Your task to perform on an android device: toggle pop-ups in chrome Image 0: 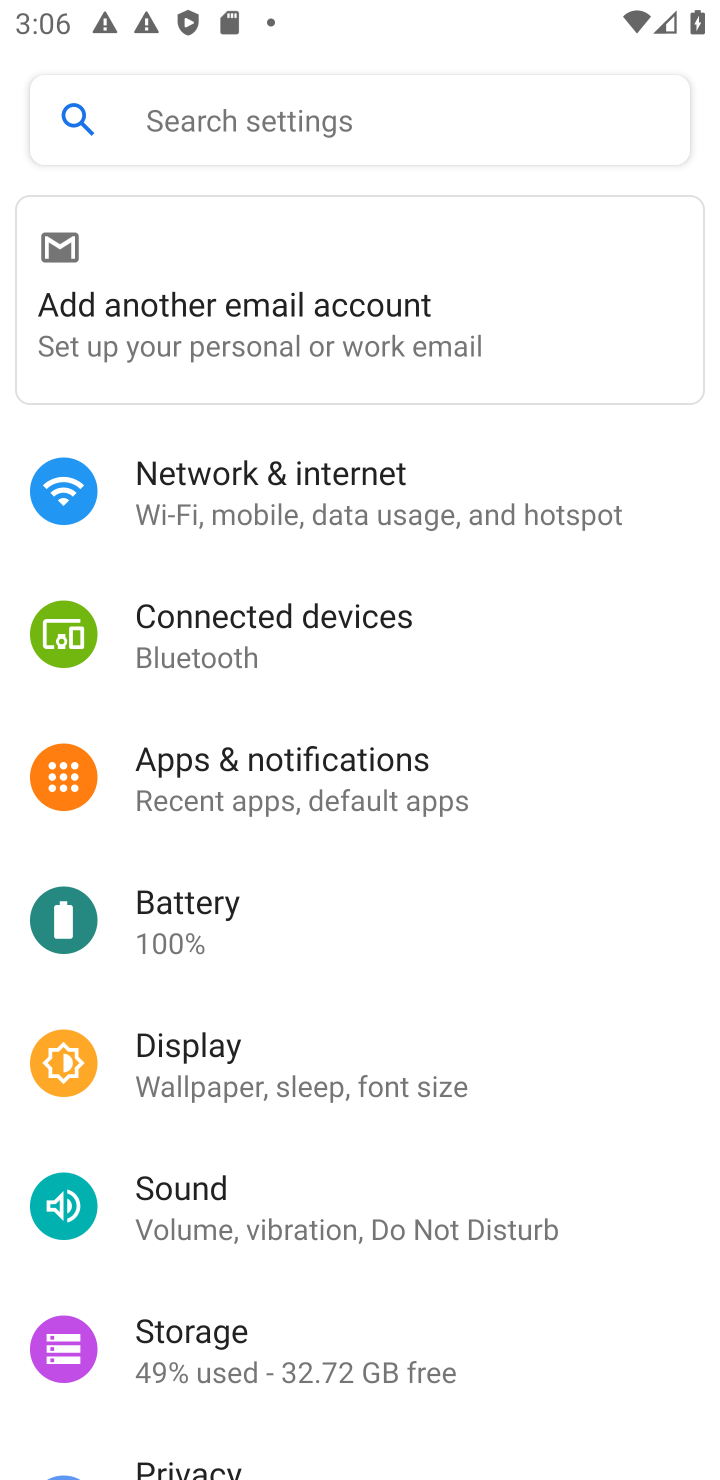
Step 0: press back button
Your task to perform on an android device: toggle pop-ups in chrome Image 1: 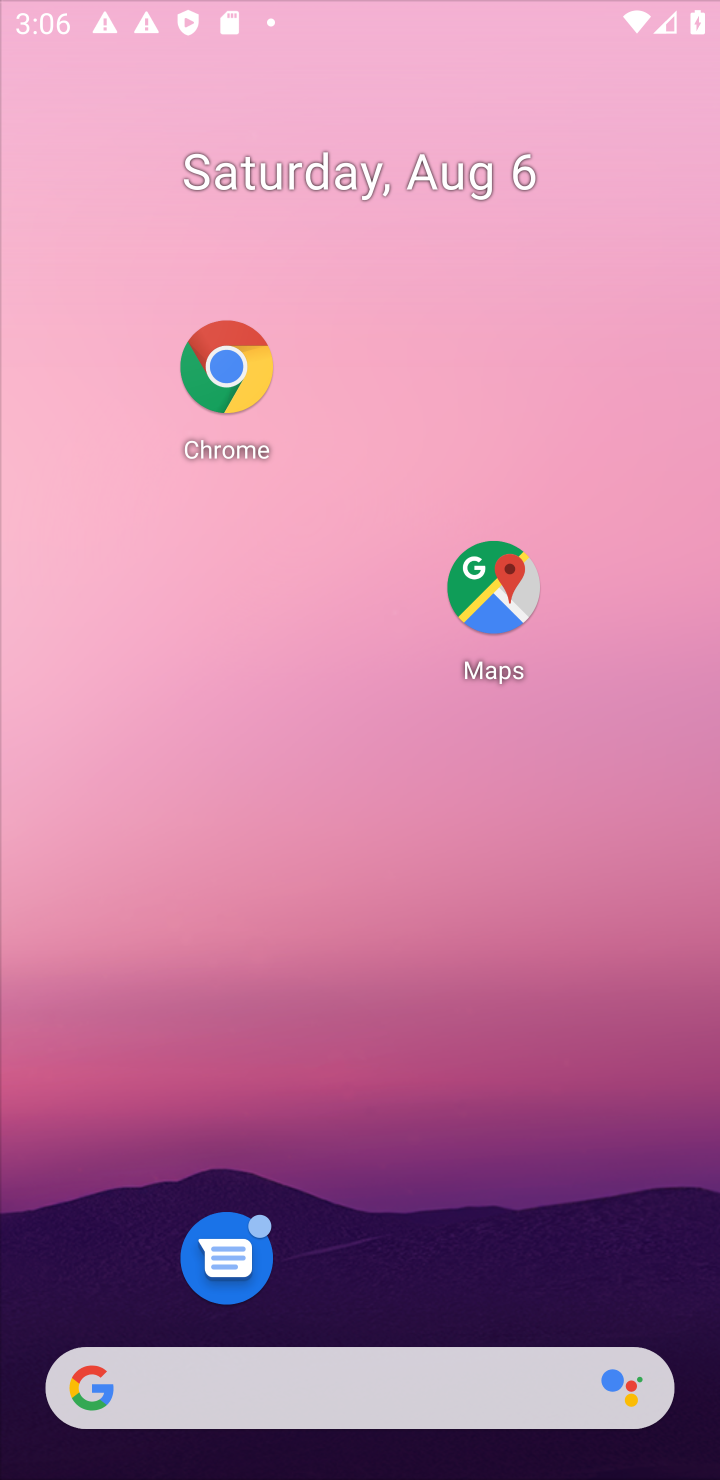
Step 1: drag from (428, 1229) to (309, 106)
Your task to perform on an android device: toggle pop-ups in chrome Image 2: 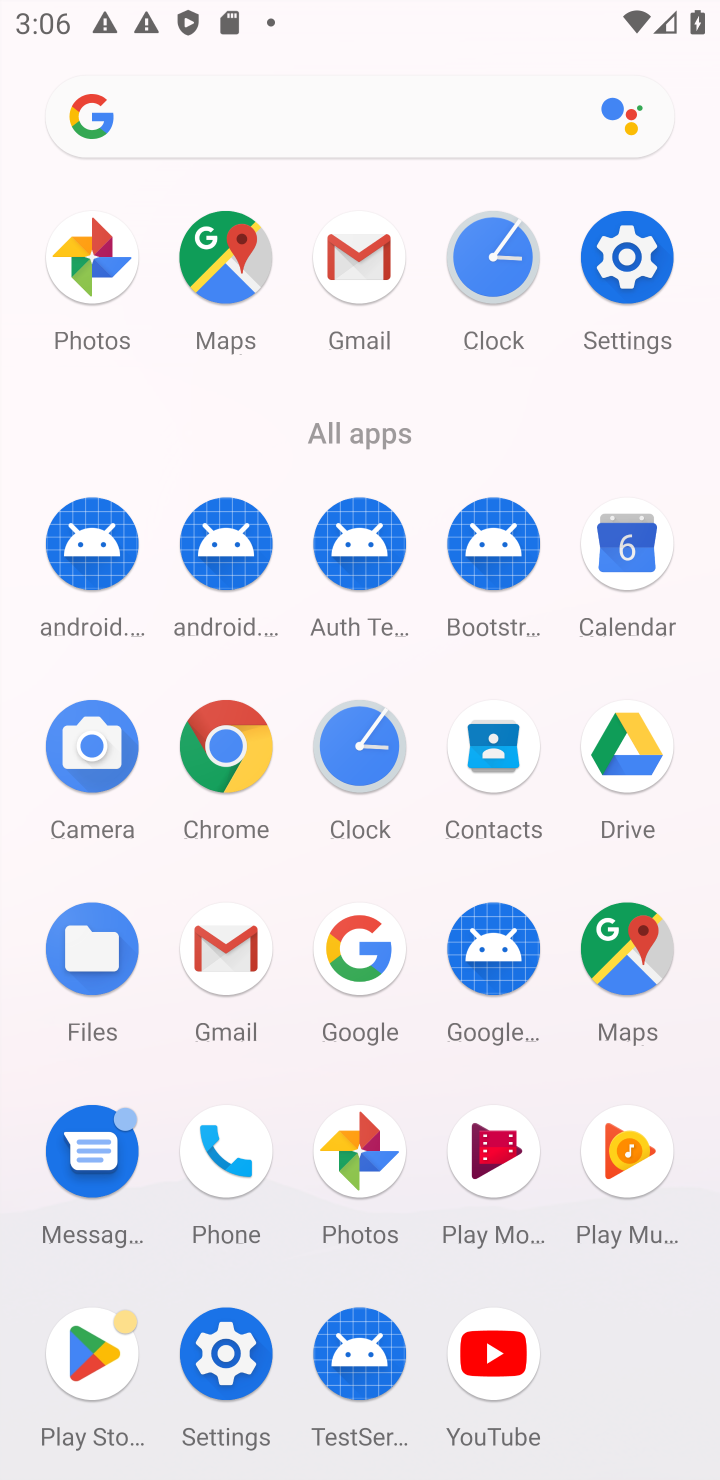
Step 2: click (210, 741)
Your task to perform on an android device: toggle pop-ups in chrome Image 3: 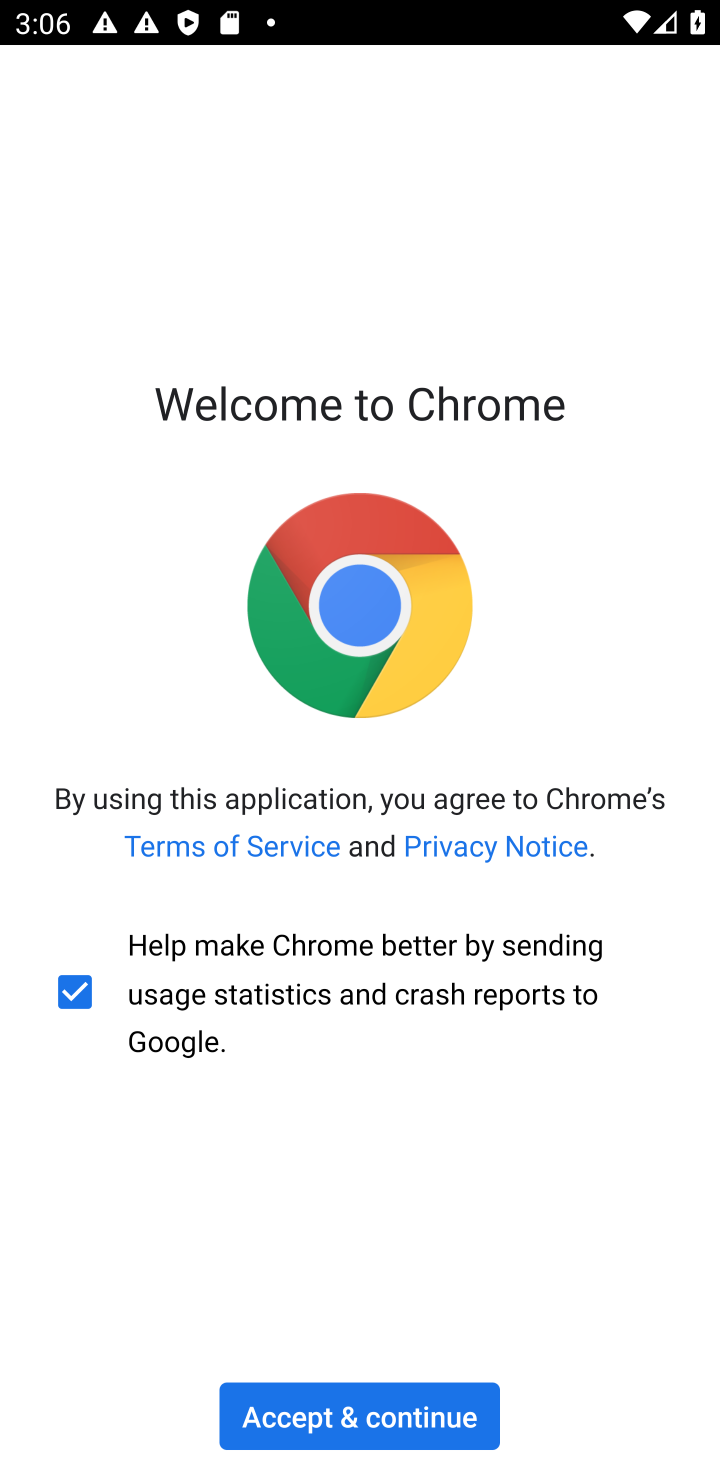
Step 3: click (359, 1408)
Your task to perform on an android device: toggle pop-ups in chrome Image 4: 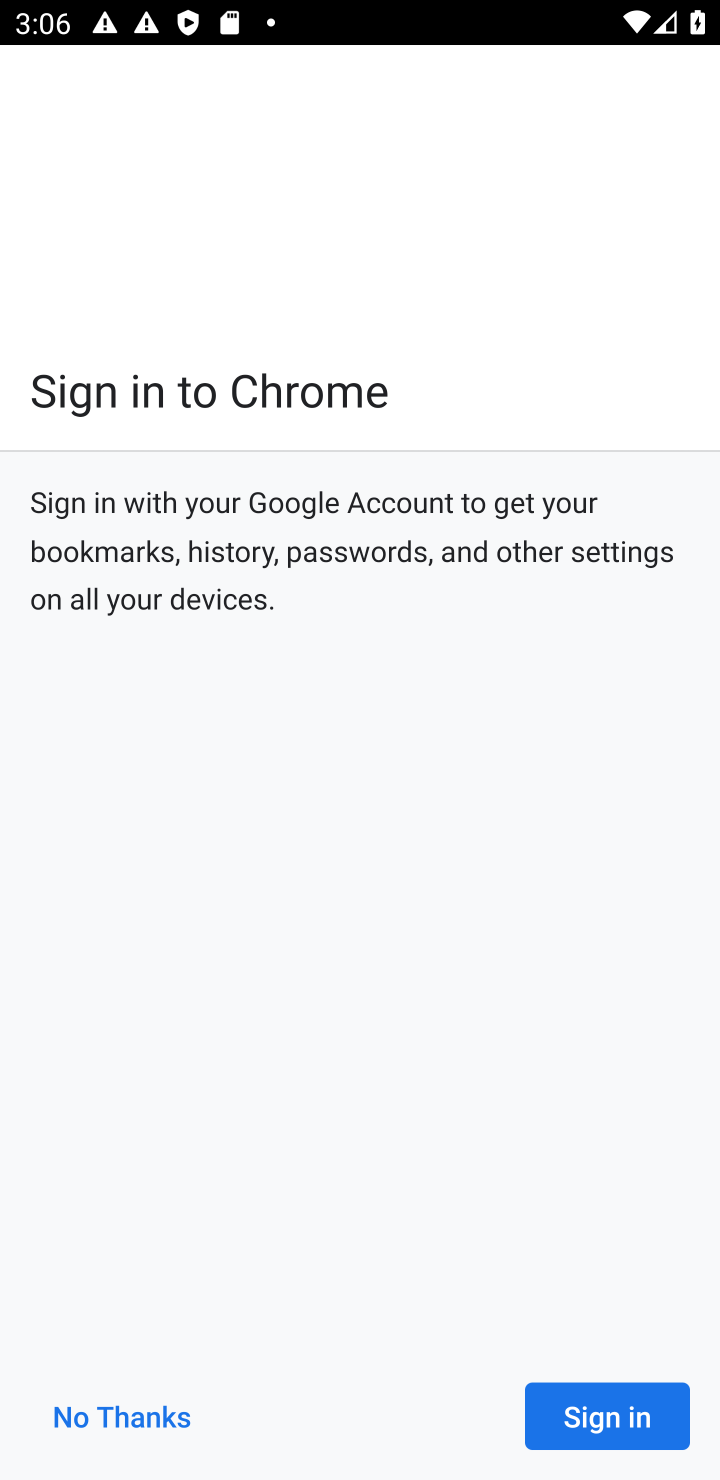
Step 4: click (139, 1425)
Your task to perform on an android device: toggle pop-ups in chrome Image 5: 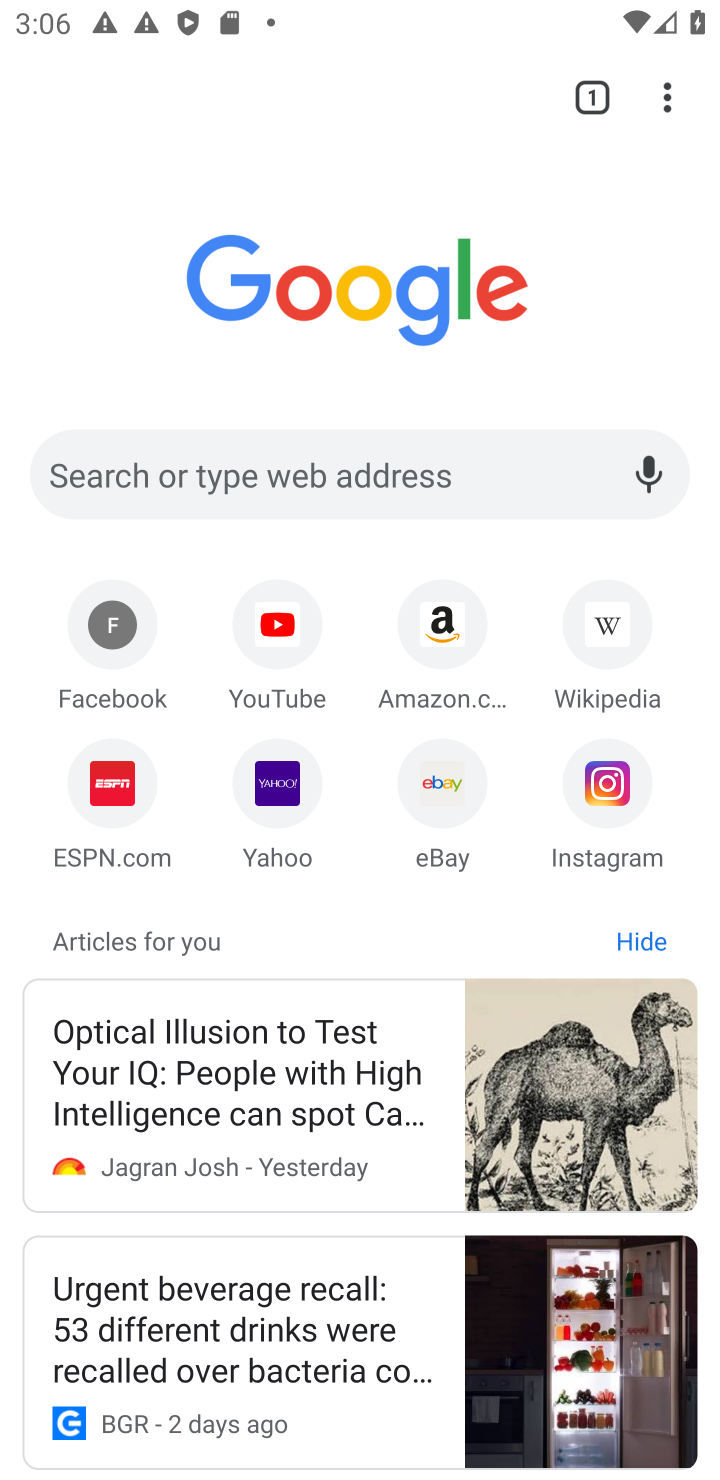
Step 5: click (664, 98)
Your task to perform on an android device: toggle pop-ups in chrome Image 6: 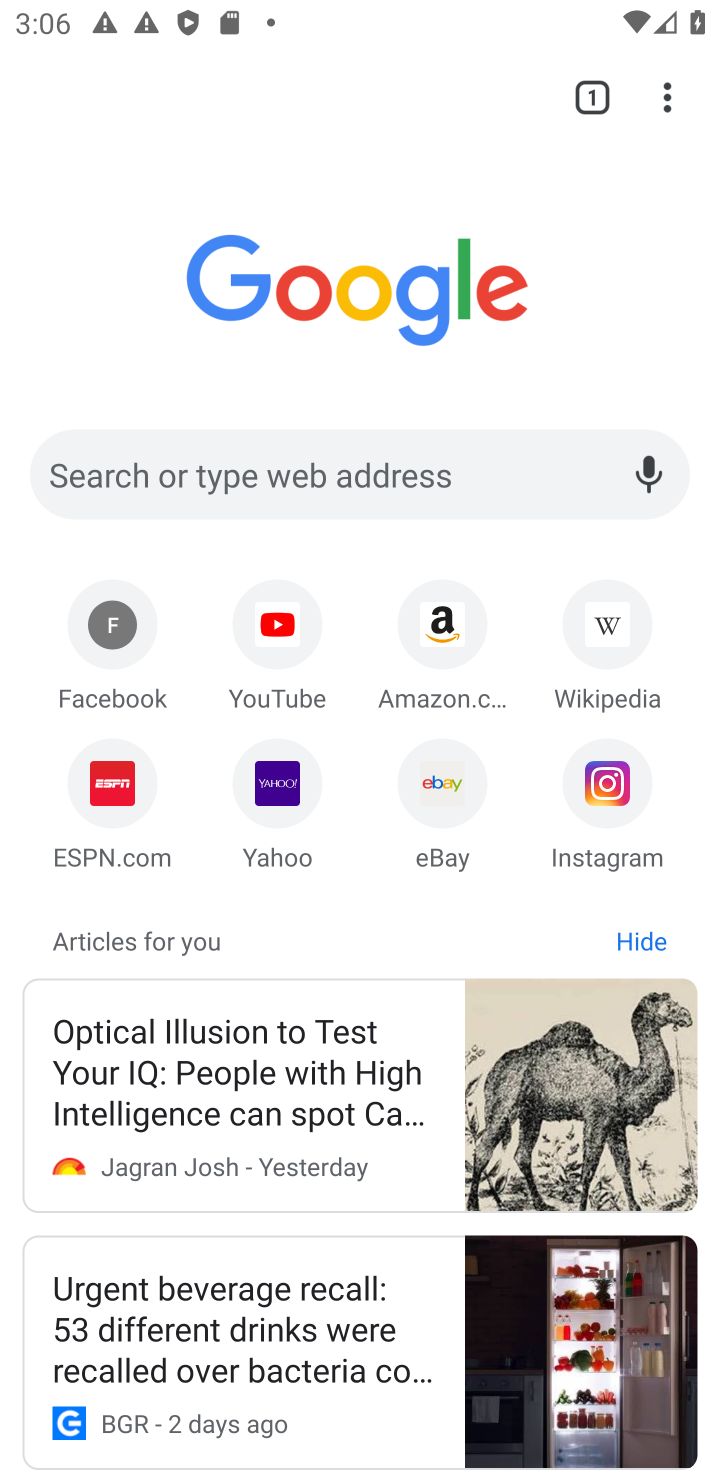
Step 6: click (656, 105)
Your task to perform on an android device: toggle pop-ups in chrome Image 7: 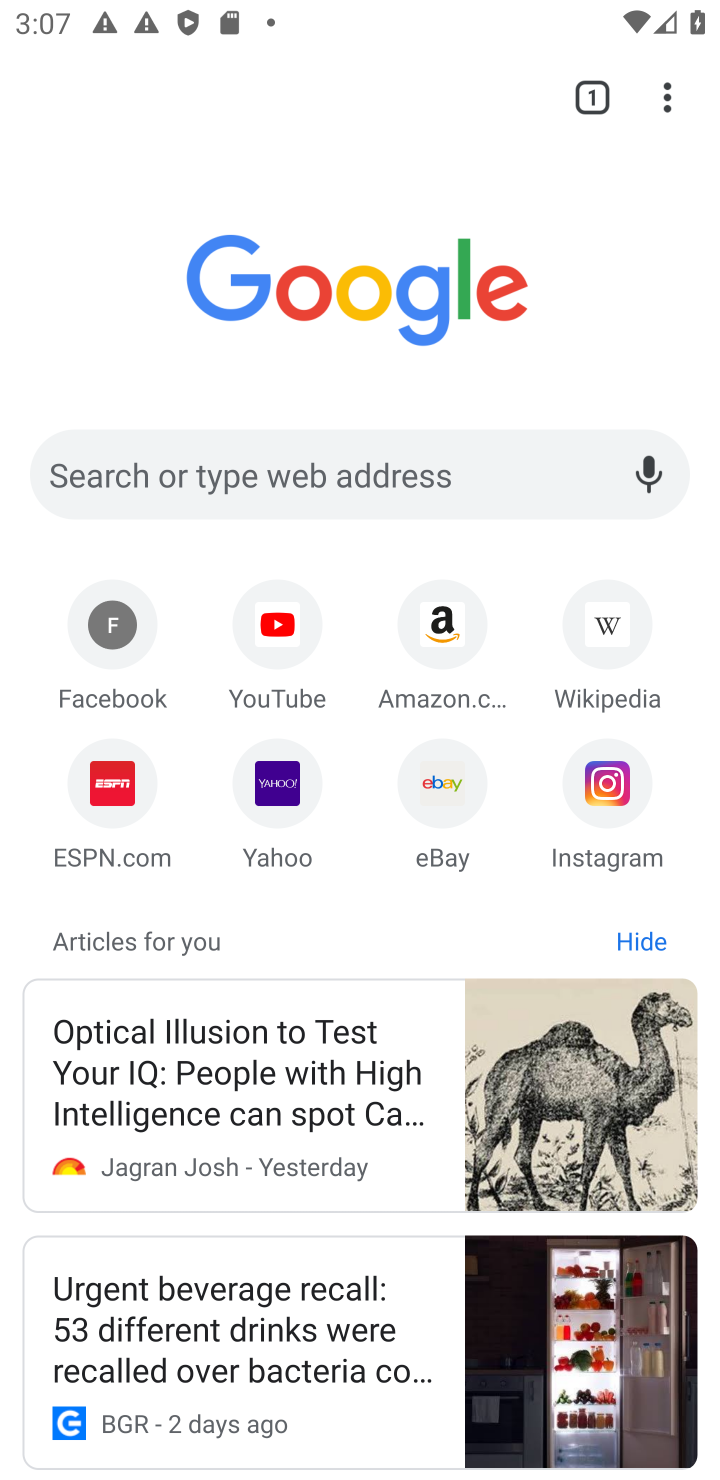
Step 7: click (659, 97)
Your task to perform on an android device: toggle pop-ups in chrome Image 8: 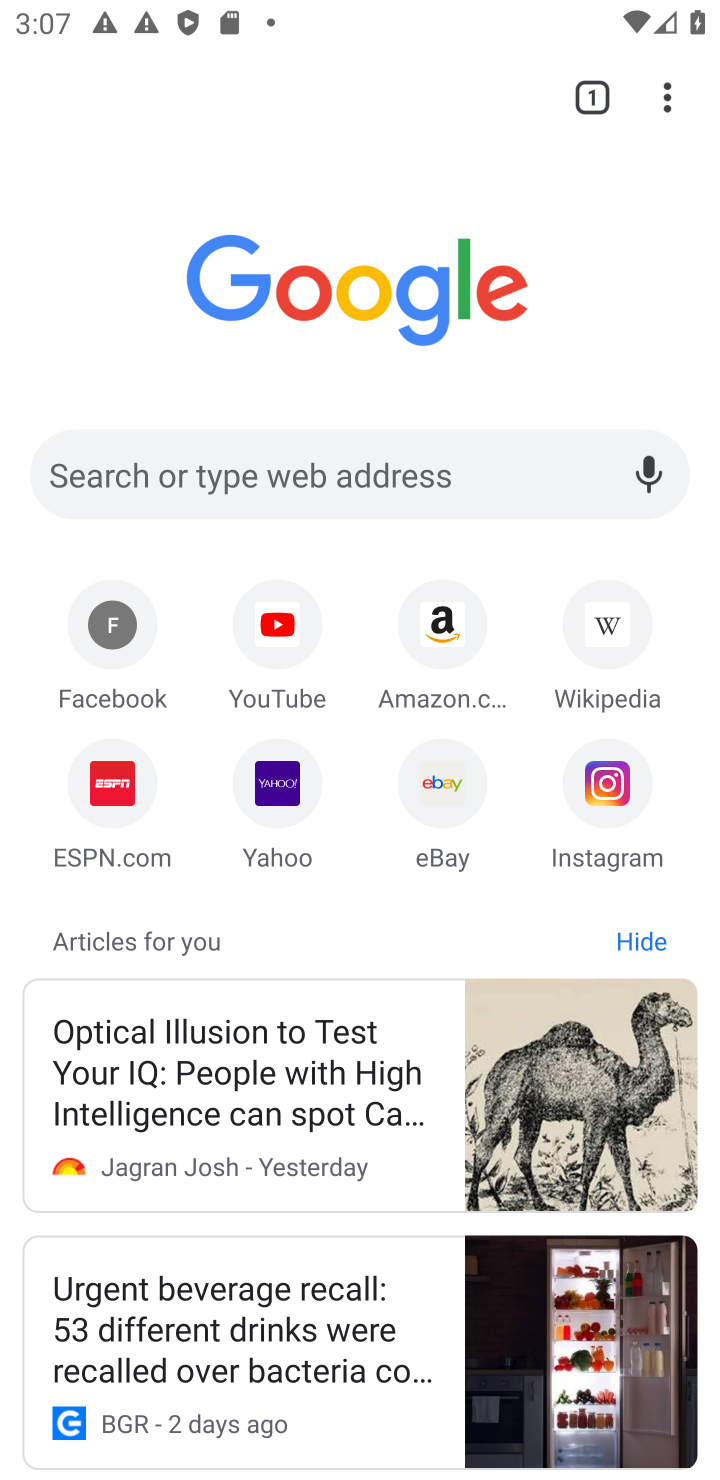
Step 8: click (658, 87)
Your task to perform on an android device: toggle pop-ups in chrome Image 9: 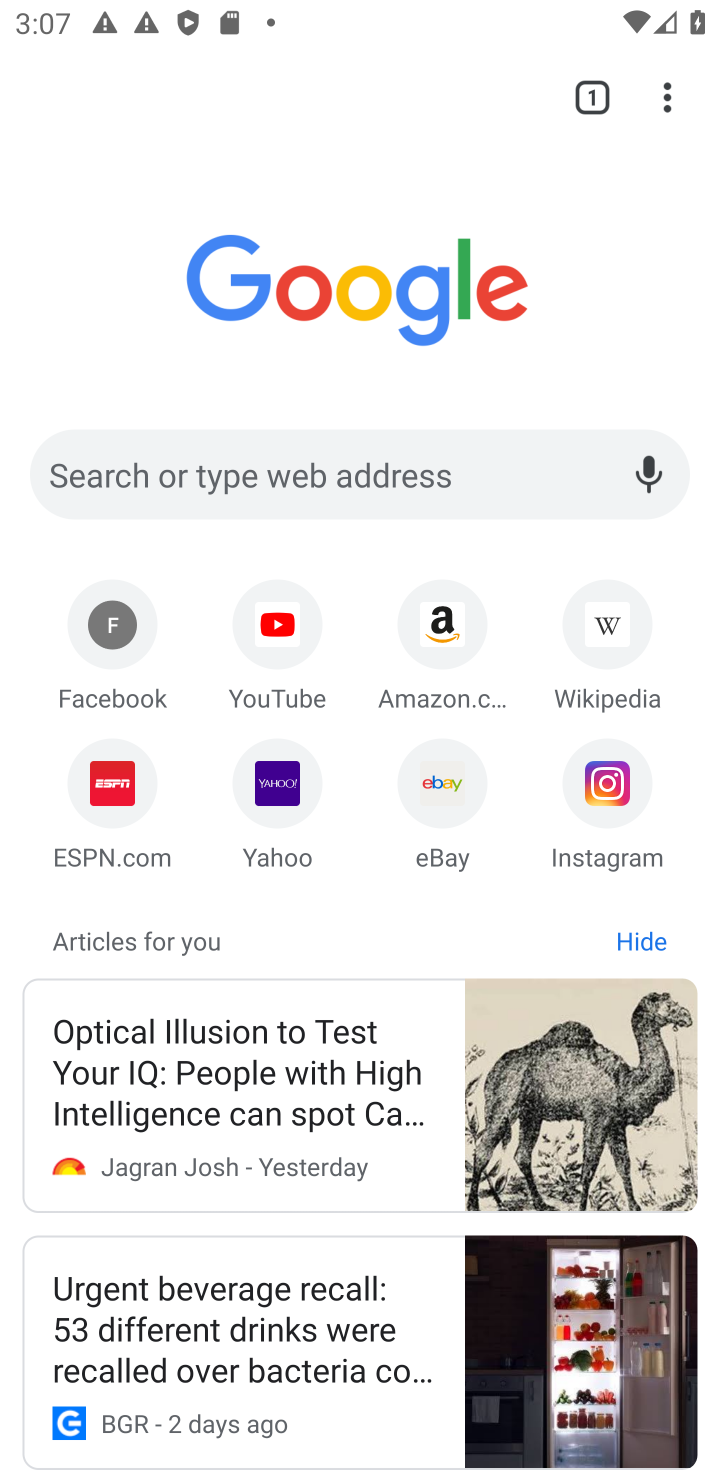
Step 9: click (658, 101)
Your task to perform on an android device: toggle pop-ups in chrome Image 10: 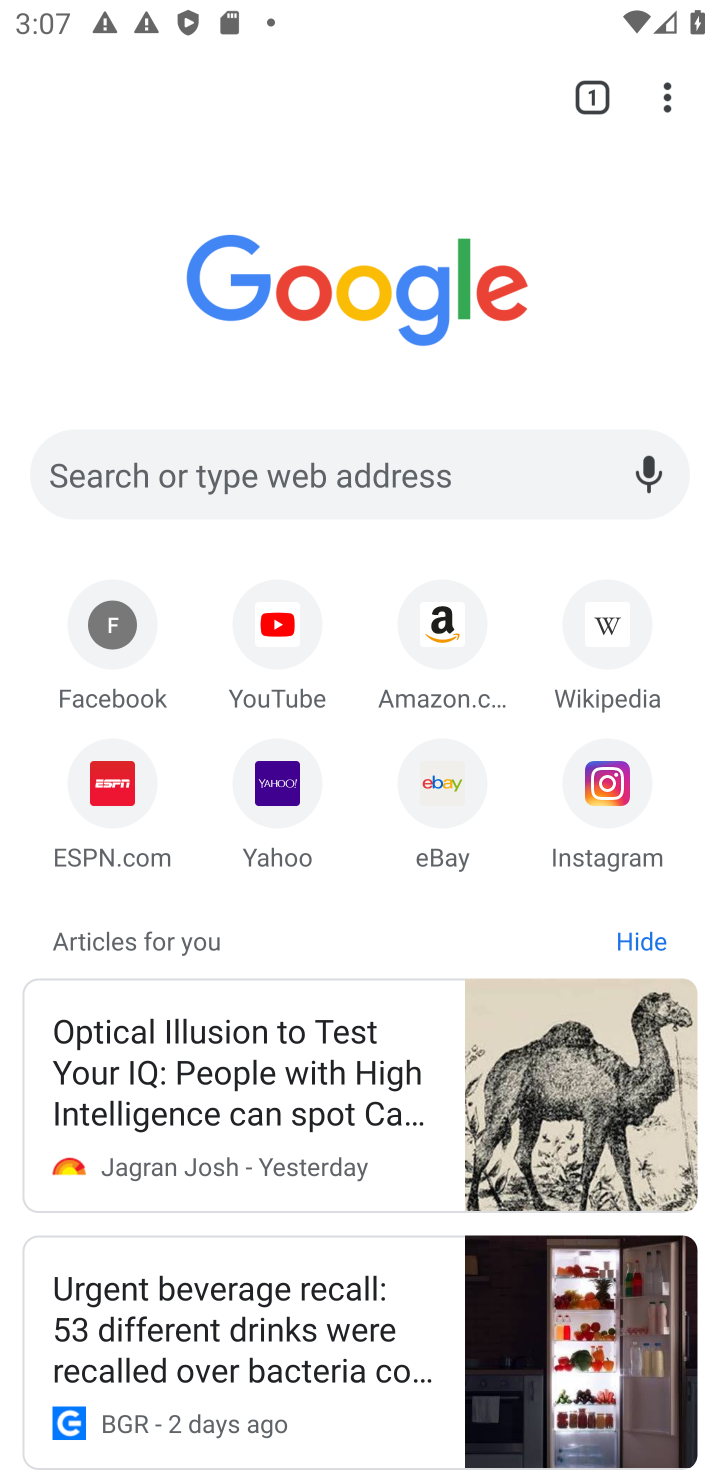
Step 10: drag from (675, 85) to (318, 826)
Your task to perform on an android device: toggle pop-ups in chrome Image 11: 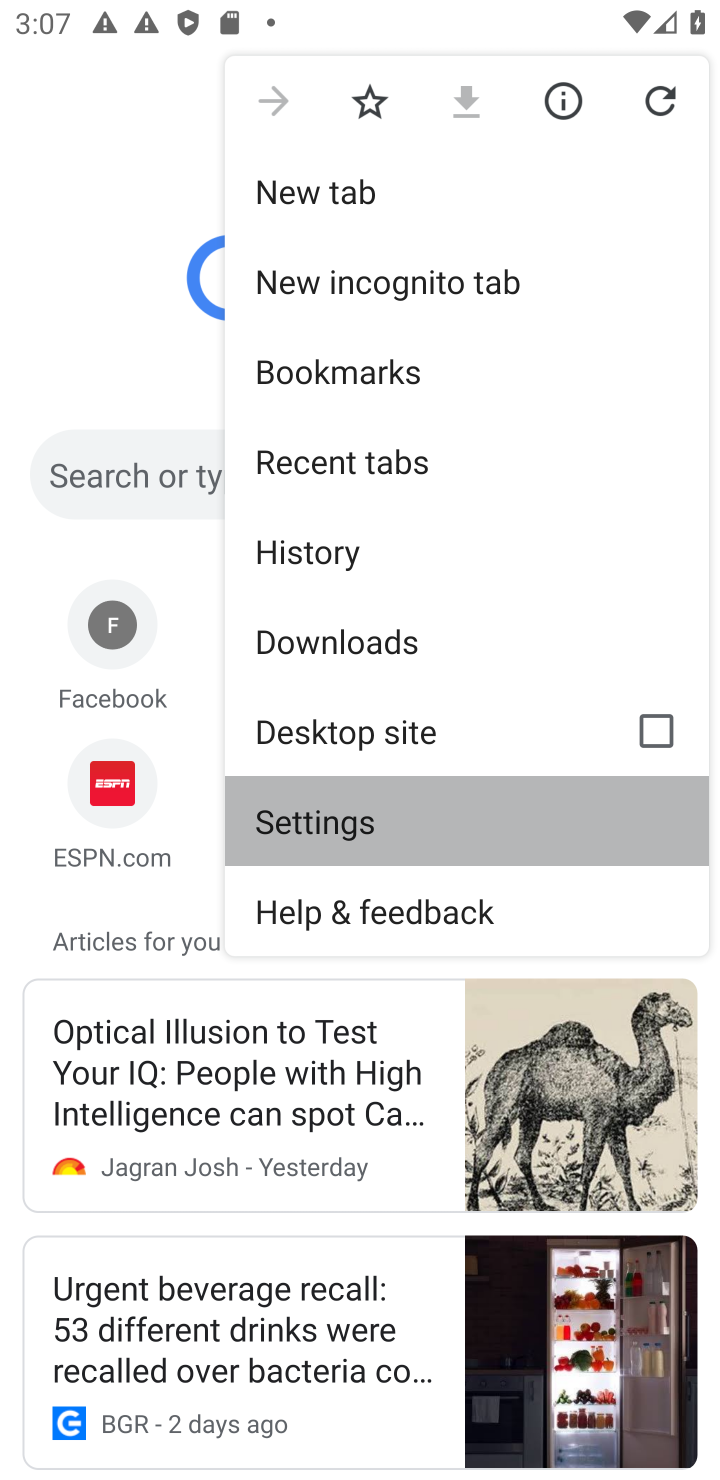
Step 11: click (314, 826)
Your task to perform on an android device: toggle pop-ups in chrome Image 12: 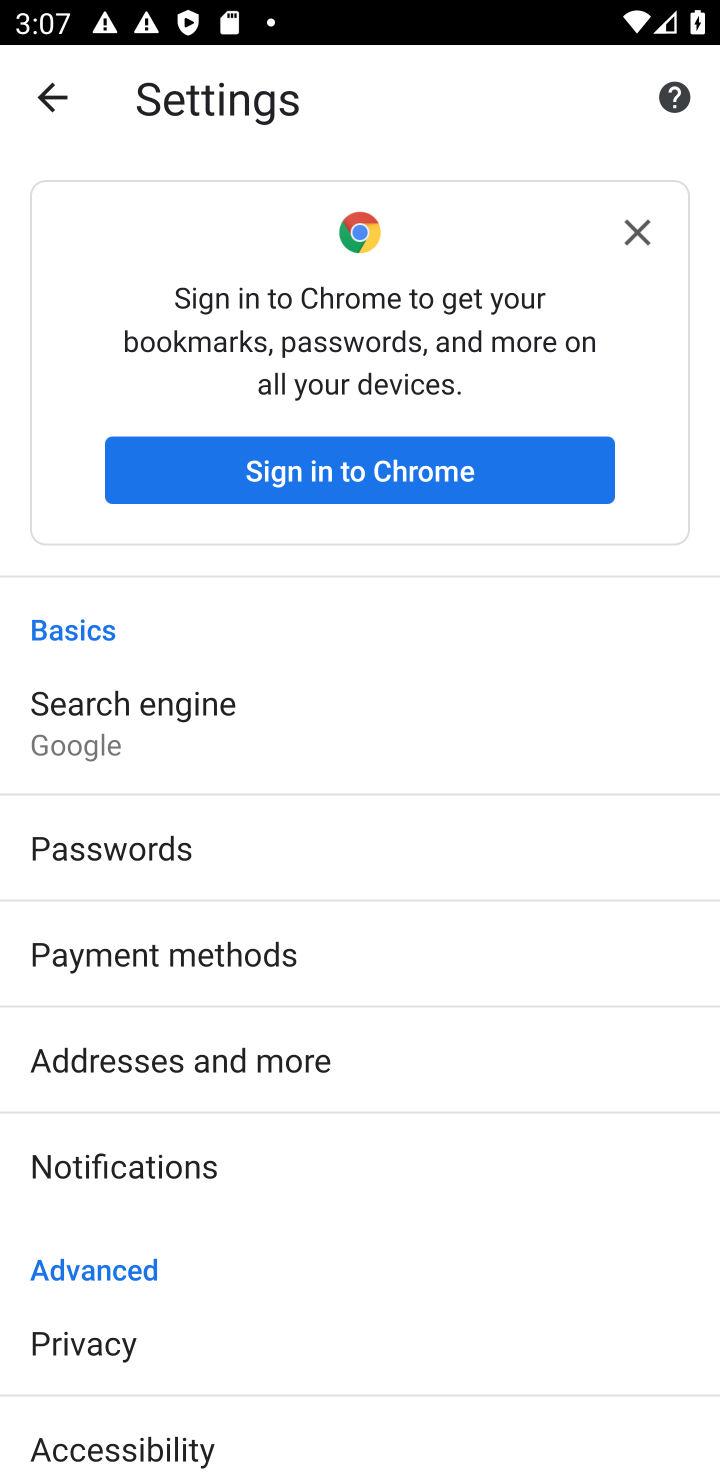
Step 12: drag from (320, 972) to (213, 543)
Your task to perform on an android device: toggle pop-ups in chrome Image 13: 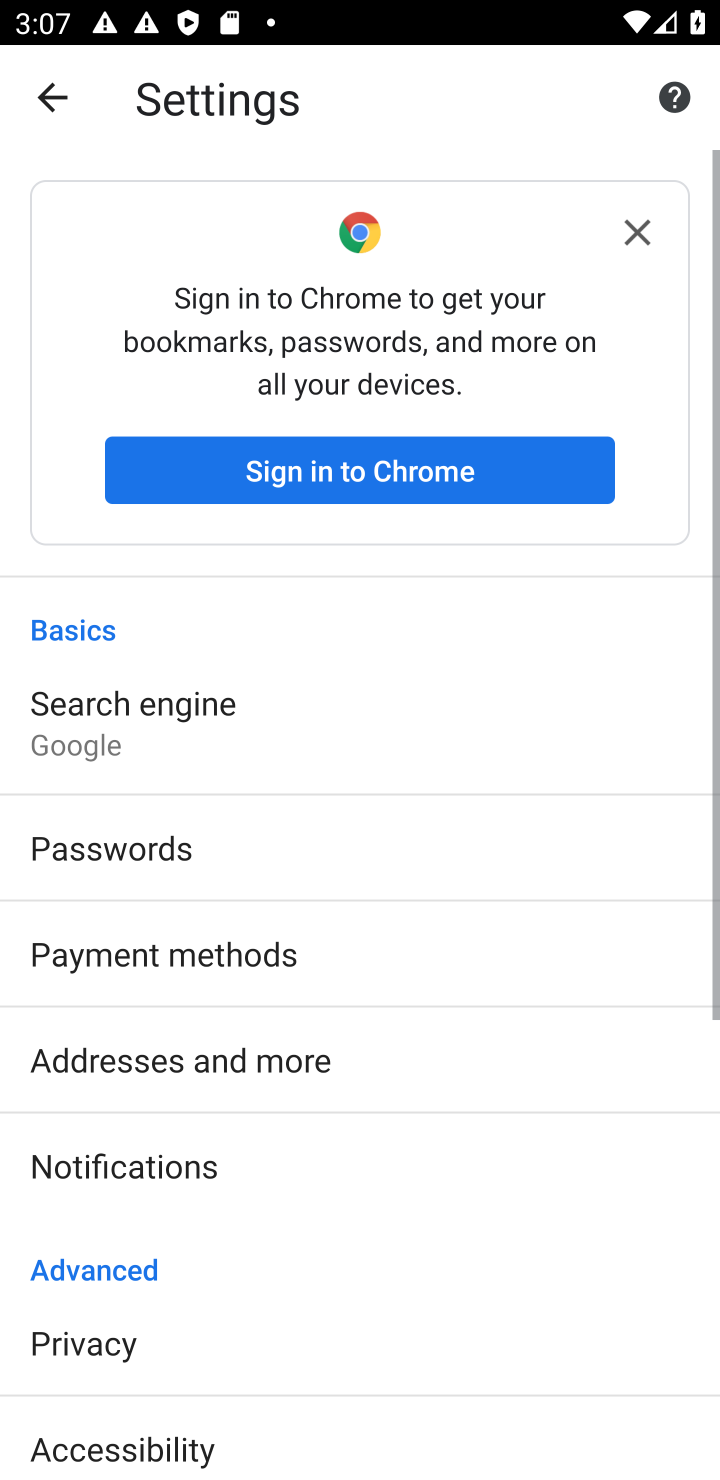
Step 13: drag from (215, 959) to (156, 434)
Your task to perform on an android device: toggle pop-ups in chrome Image 14: 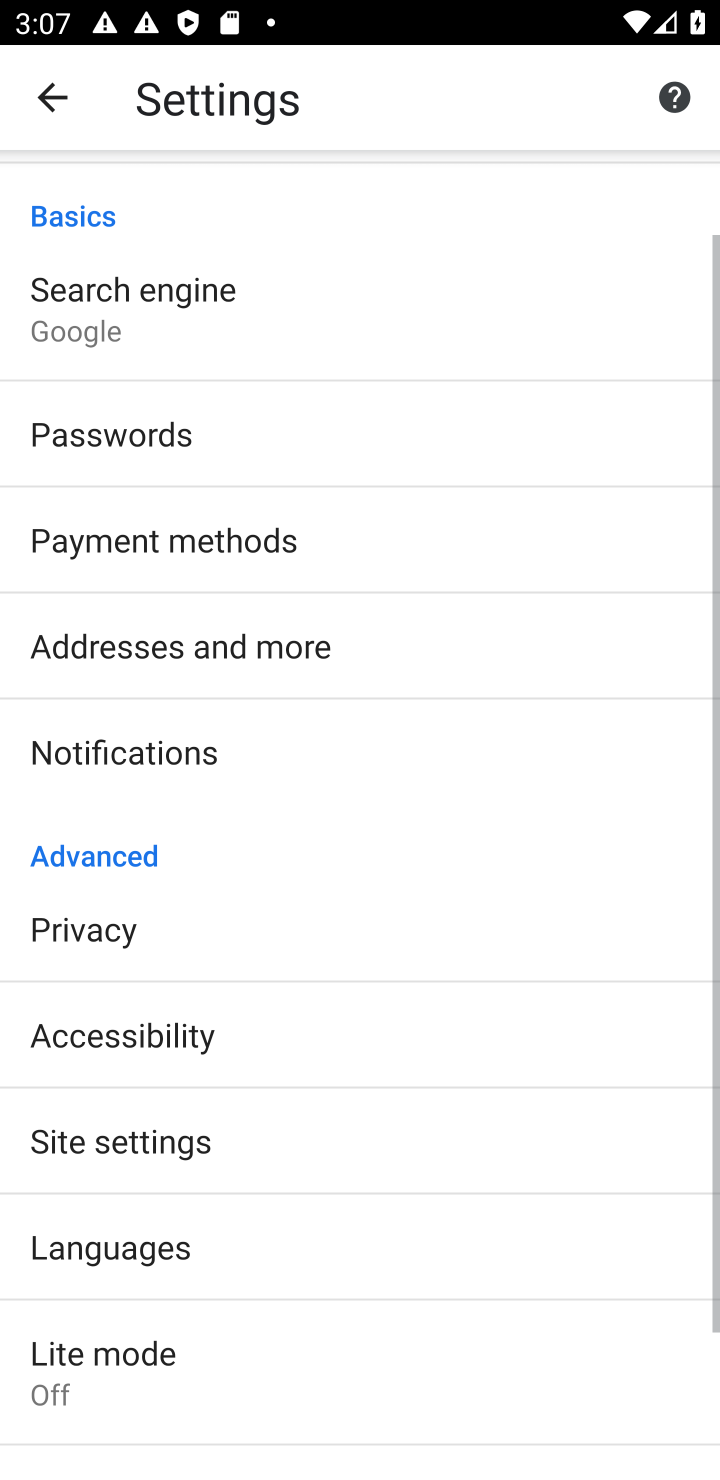
Step 14: drag from (293, 1006) to (277, 526)
Your task to perform on an android device: toggle pop-ups in chrome Image 15: 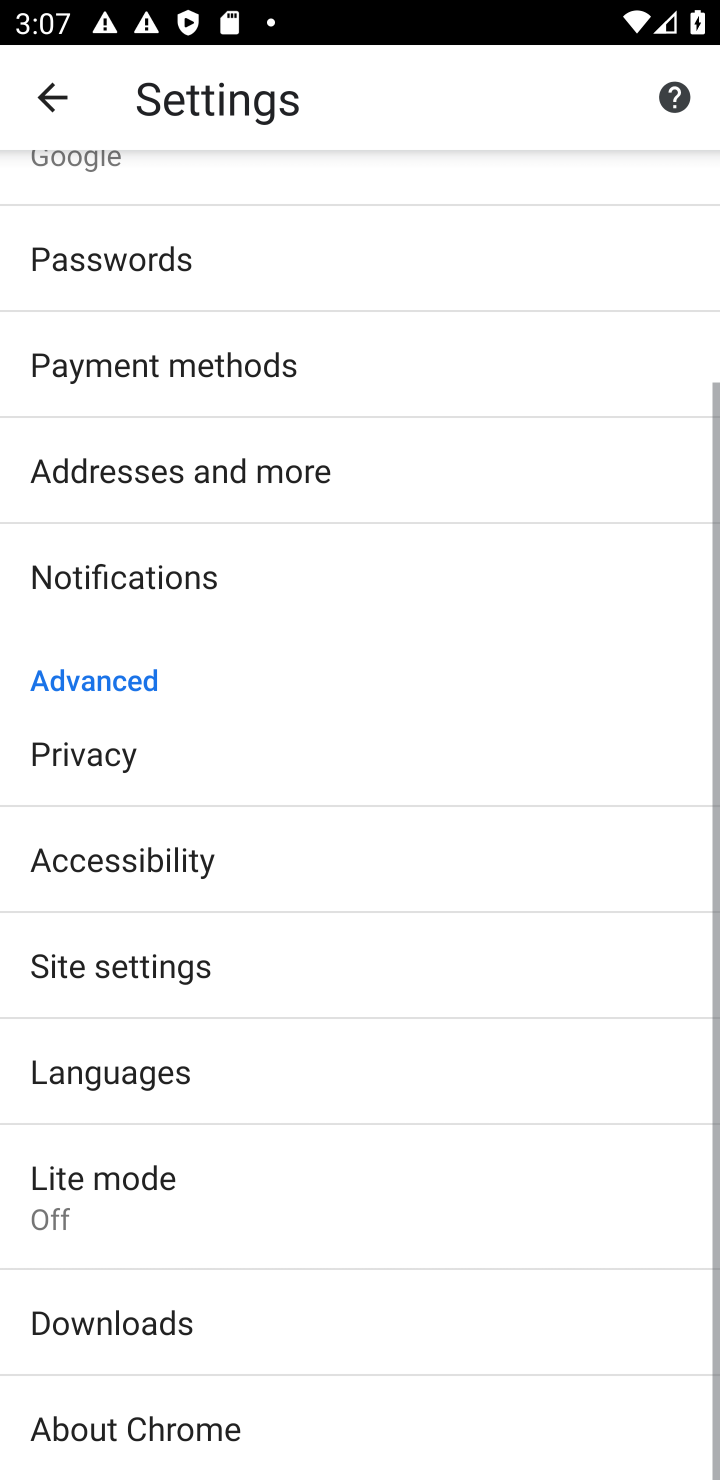
Step 15: click (104, 969)
Your task to perform on an android device: toggle pop-ups in chrome Image 16: 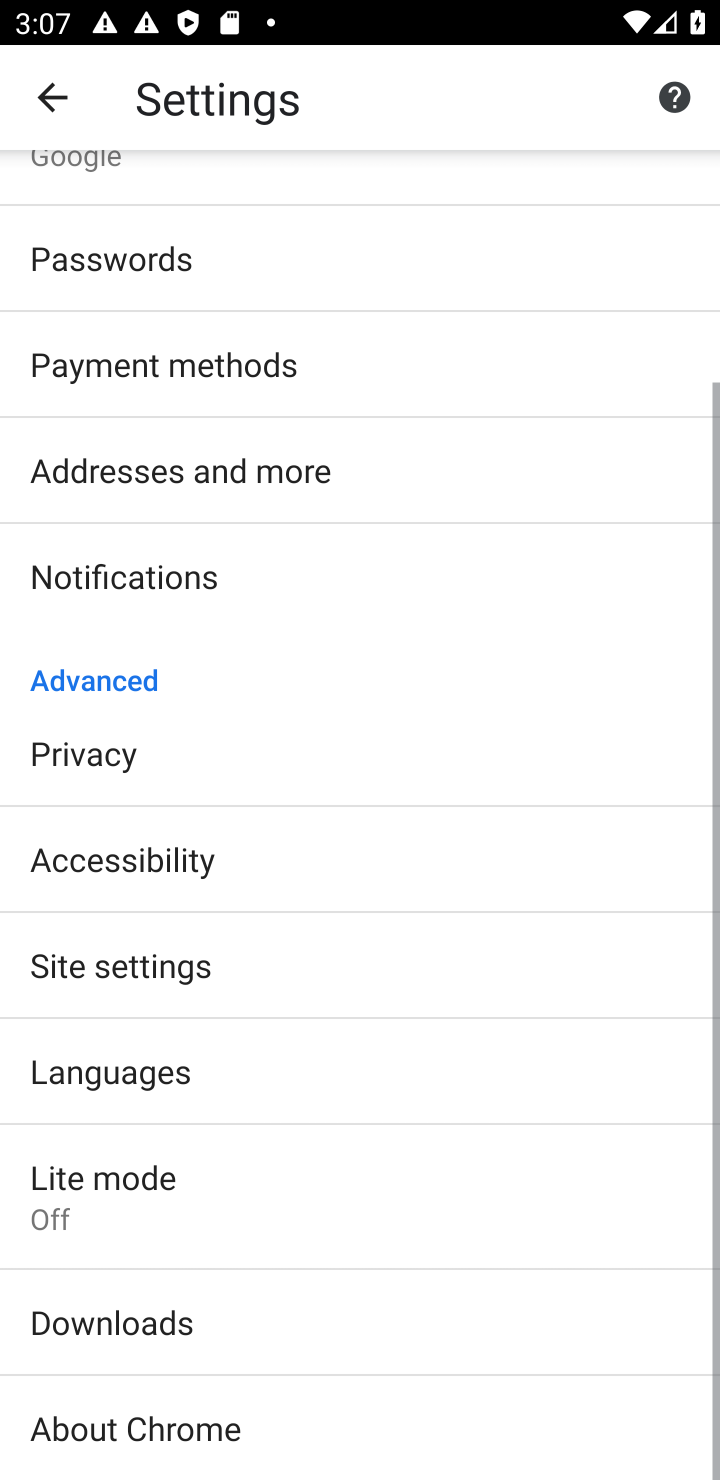
Step 16: click (104, 969)
Your task to perform on an android device: toggle pop-ups in chrome Image 17: 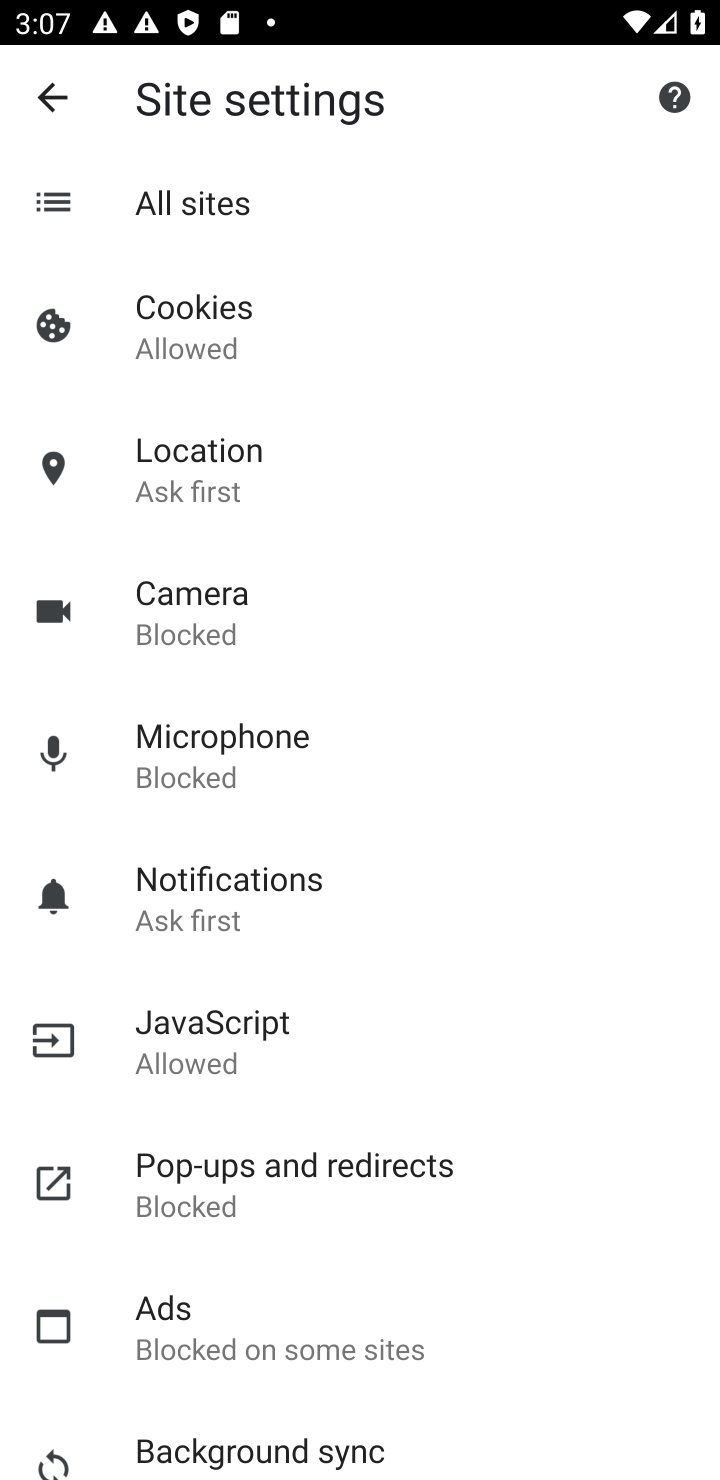
Step 17: click (205, 1163)
Your task to perform on an android device: toggle pop-ups in chrome Image 18: 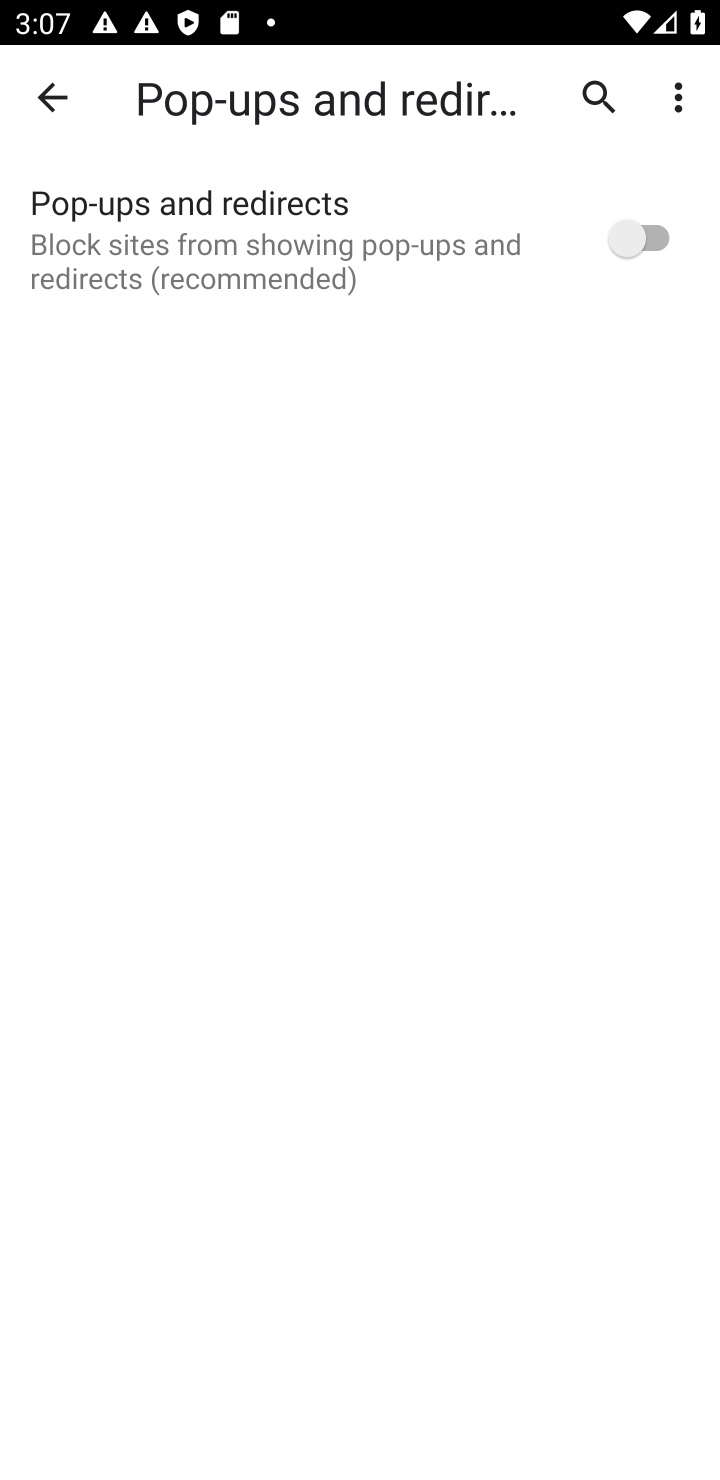
Step 18: click (617, 238)
Your task to perform on an android device: toggle pop-ups in chrome Image 19: 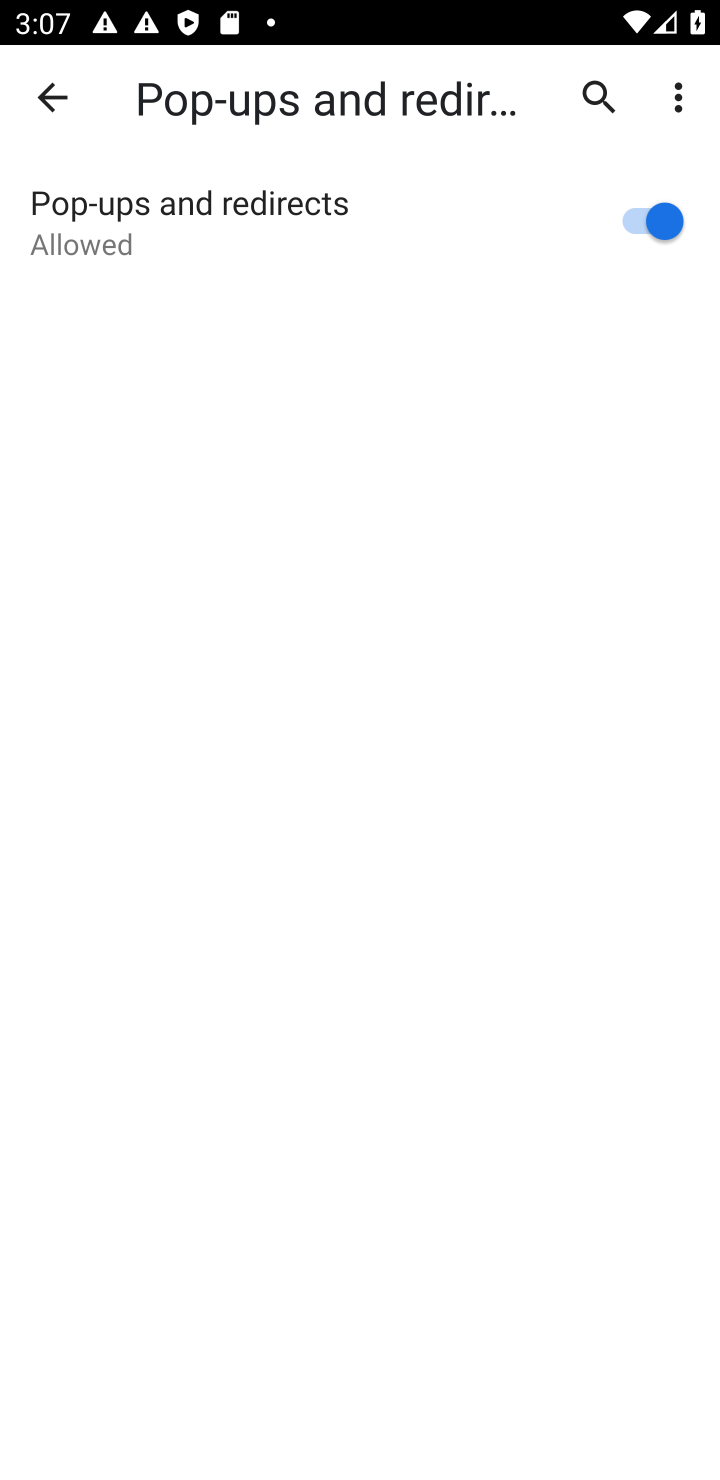
Step 19: task complete